Your task to perform on an android device: refresh tabs in the chrome app Image 0: 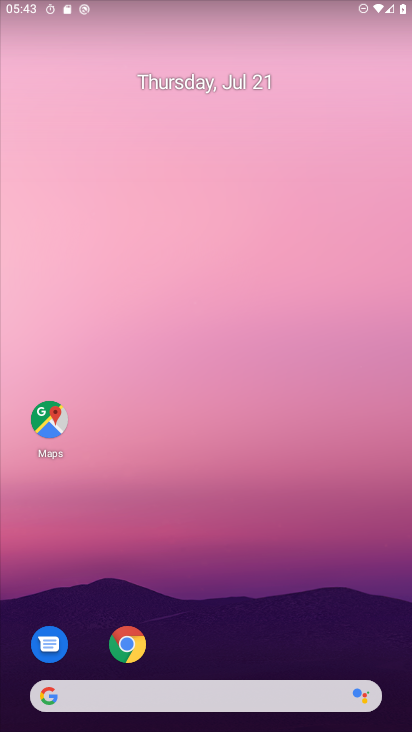
Step 0: click (126, 642)
Your task to perform on an android device: refresh tabs in the chrome app Image 1: 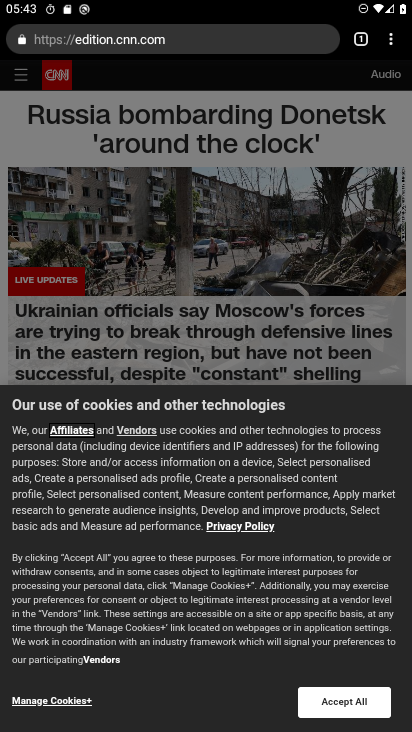
Step 1: click (394, 40)
Your task to perform on an android device: refresh tabs in the chrome app Image 2: 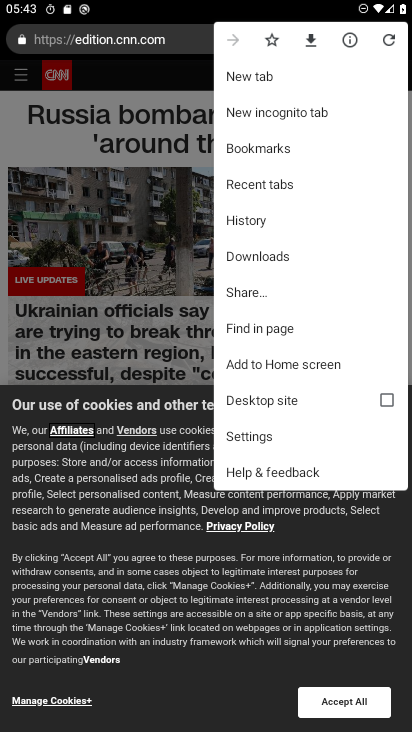
Step 2: click (386, 35)
Your task to perform on an android device: refresh tabs in the chrome app Image 3: 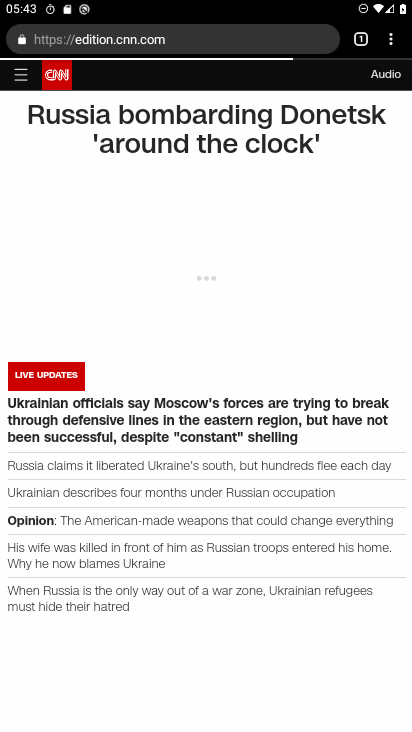
Step 3: task complete